Your task to perform on an android device: Open Google Chrome and open the bookmarks view Image 0: 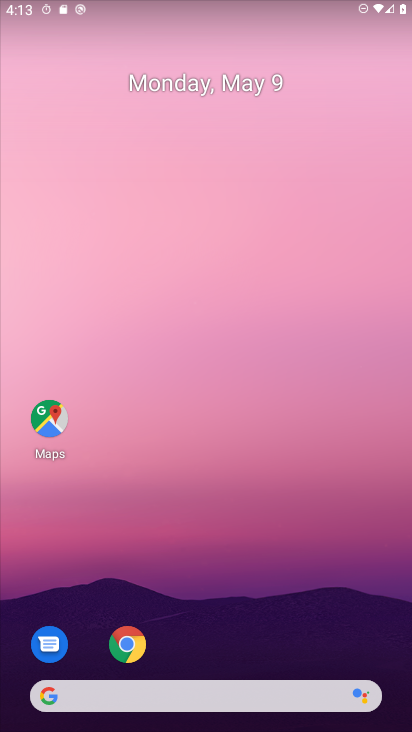
Step 0: click (118, 656)
Your task to perform on an android device: Open Google Chrome and open the bookmarks view Image 1: 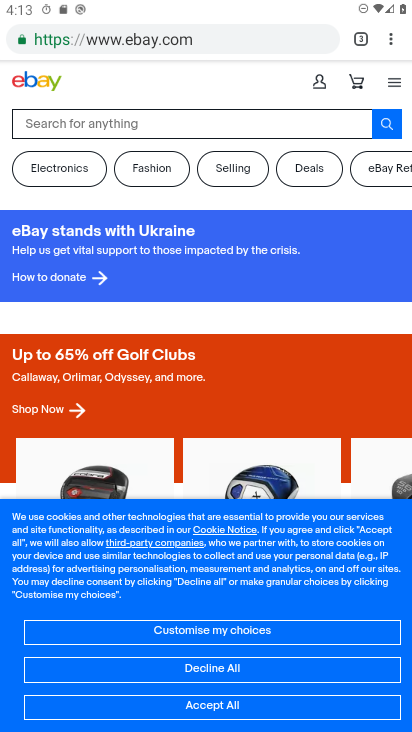
Step 1: click (390, 45)
Your task to perform on an android device: Open Google Chrome and open the bookmarks view Image 2: 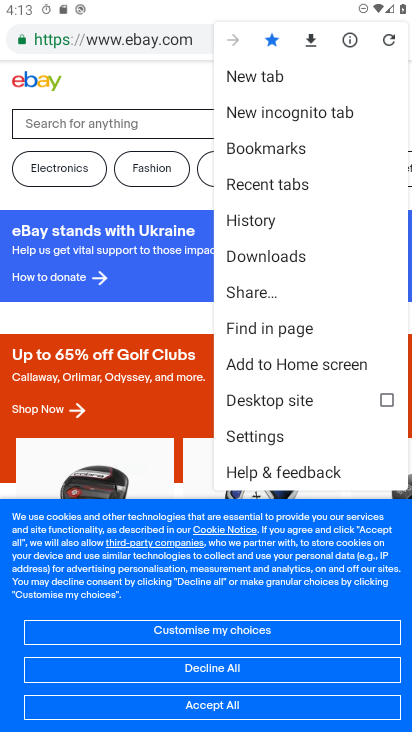
Step 2: click (301, 154)
Your task to perform on an android device: Open Google Chrome and open the bookmarks view Image 3: 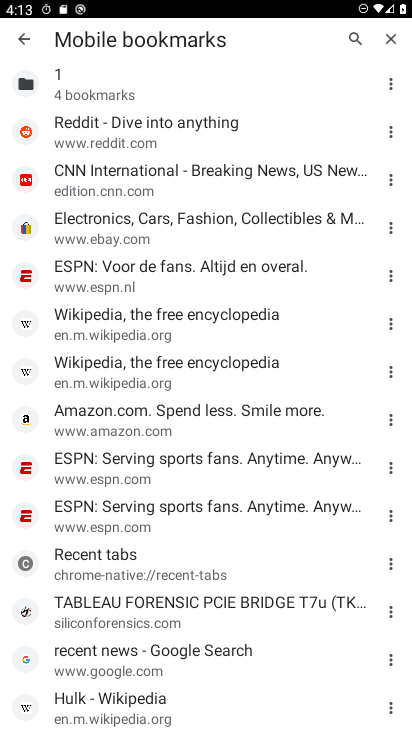
Step 3: task complete